Your task to perform on an android device: toggle priority inbox in the gmail app Image 0: 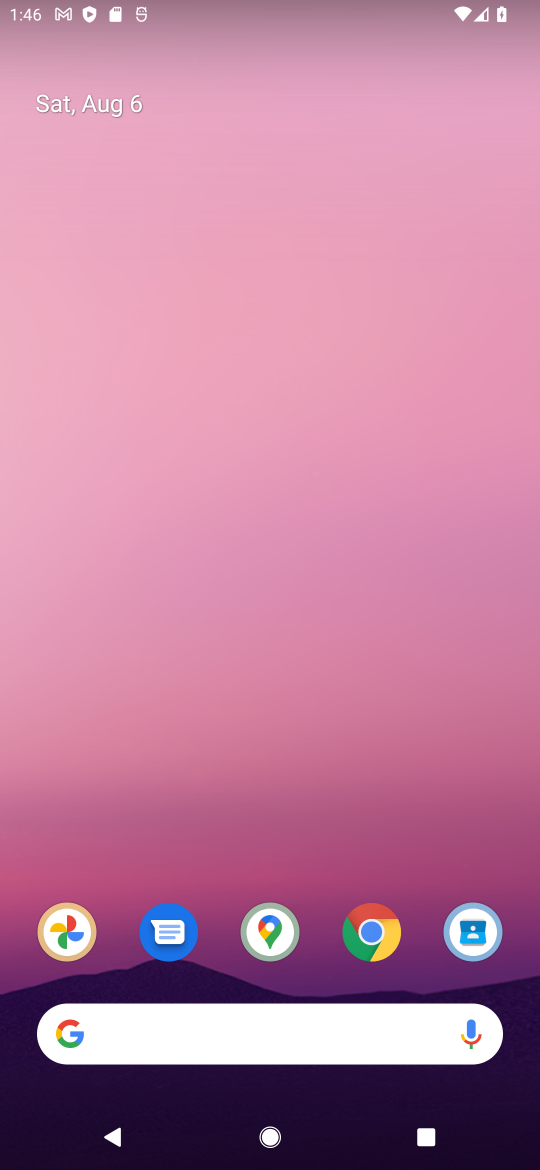
Step 0: drag from (235, 818) to (286, 46)
Your task to perform on an android device: toggle priority inbox in the gmail app Image 1: 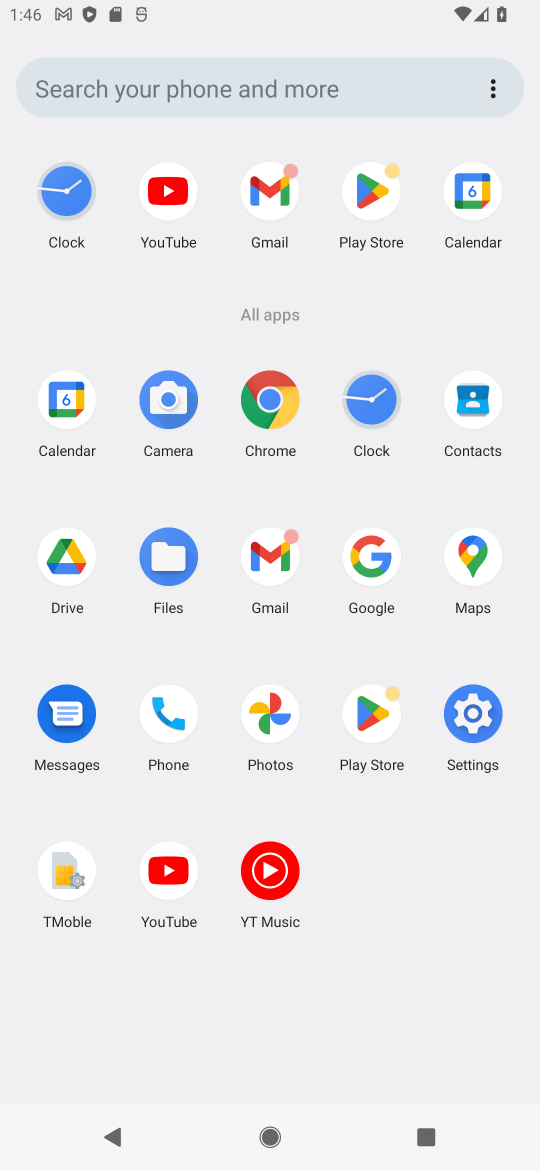
Step 1: click (266, 547)
Your task to perform on an android device: toggle priority inbox in the gmail app Image 2: 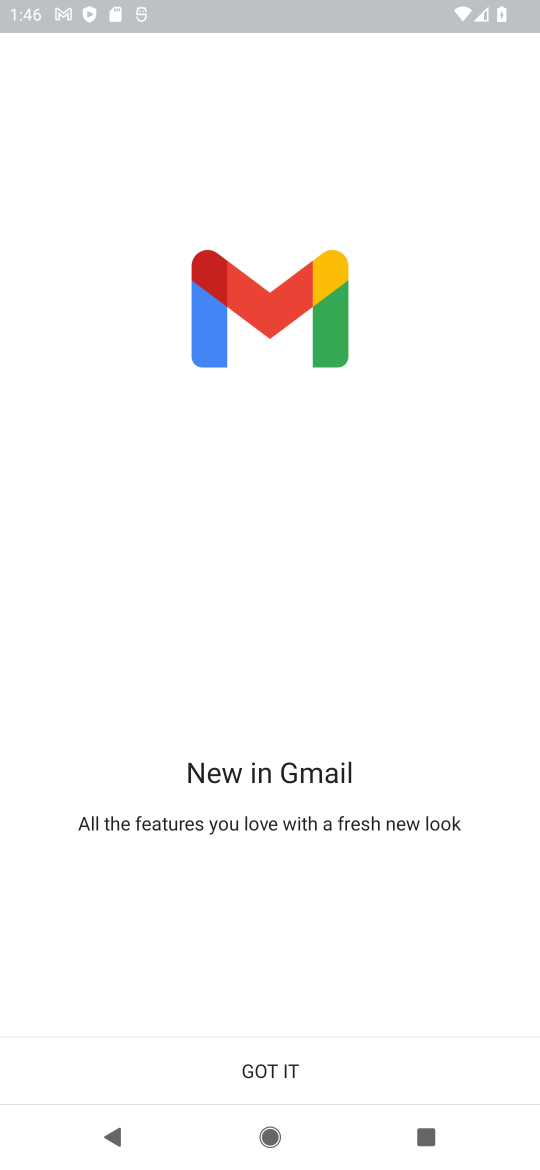
Step 2: click (258, 1043)
Your task to perform on an android device: toggle priority inbox in the gmail app Image 3: 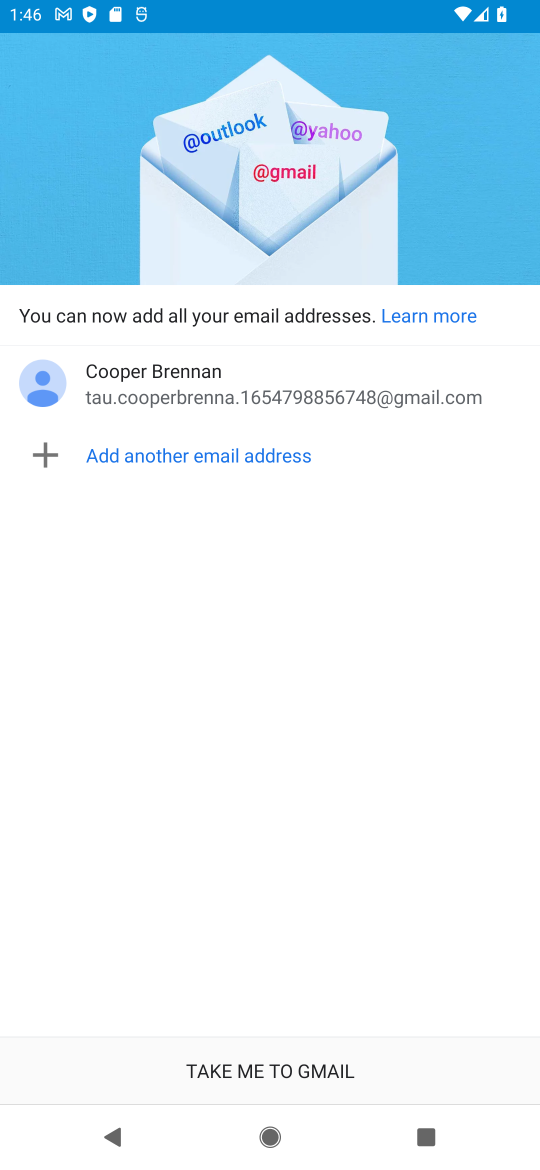
Step 3: click (258, 1043)
Your task to perform on an android device: toggle priority inbox in the gmail app Image 4: 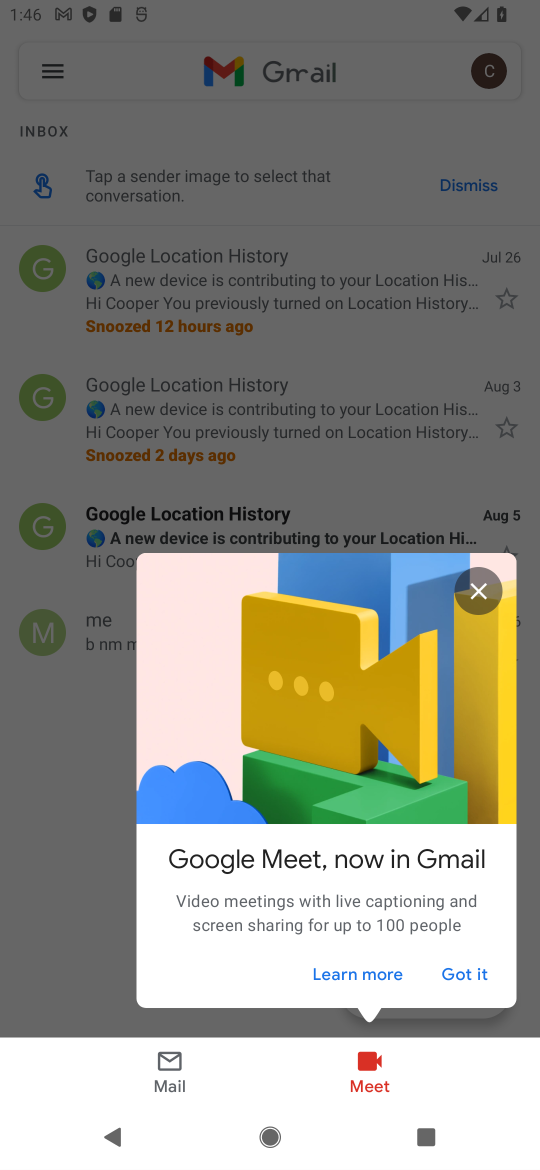
Step 4: click (474, 602)
Your task to perform on an android device: toggle priority inbox in the gmail app Image 5: 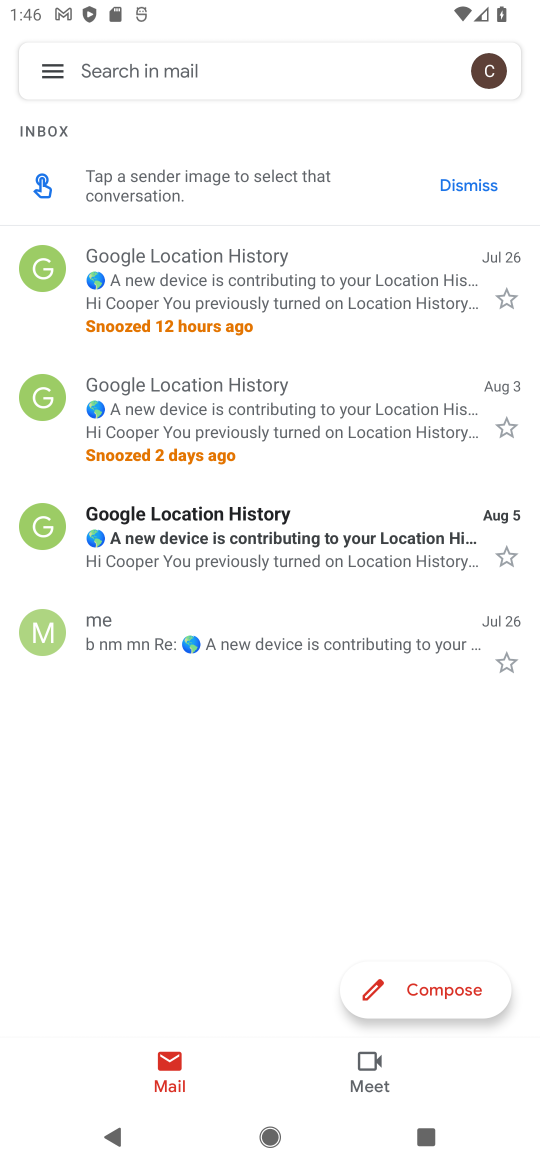
Step 5: click (56, 66)
Your task to perform on an android device: toggle priority inbox in the gmail app Image 6: 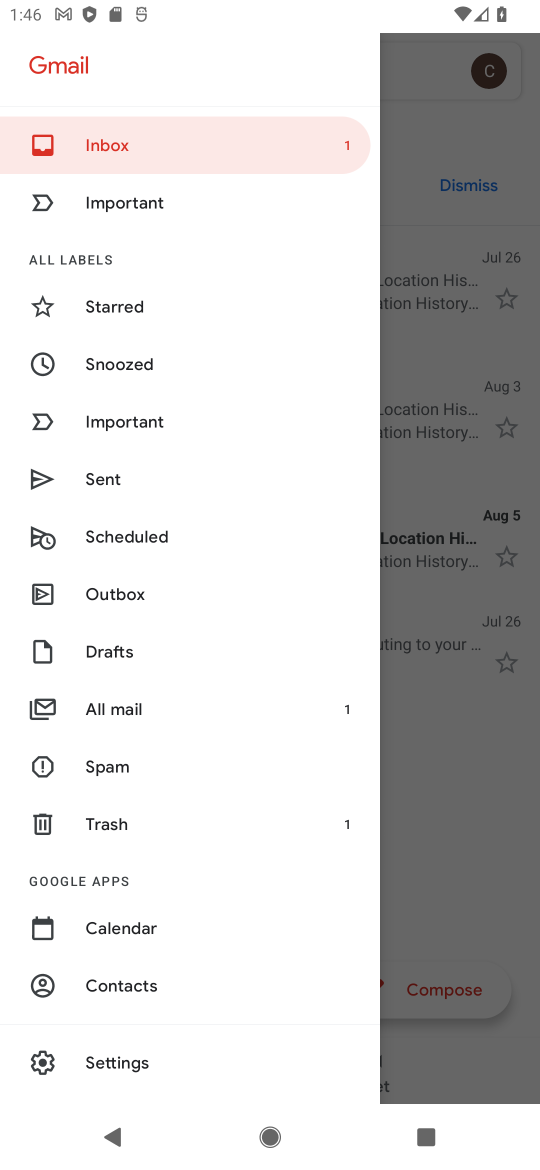
Step 6: drag from (242, 1020) to (219, 540)
Your task to perform on an android device: toggle priority inbox in the gmail app Image 7: 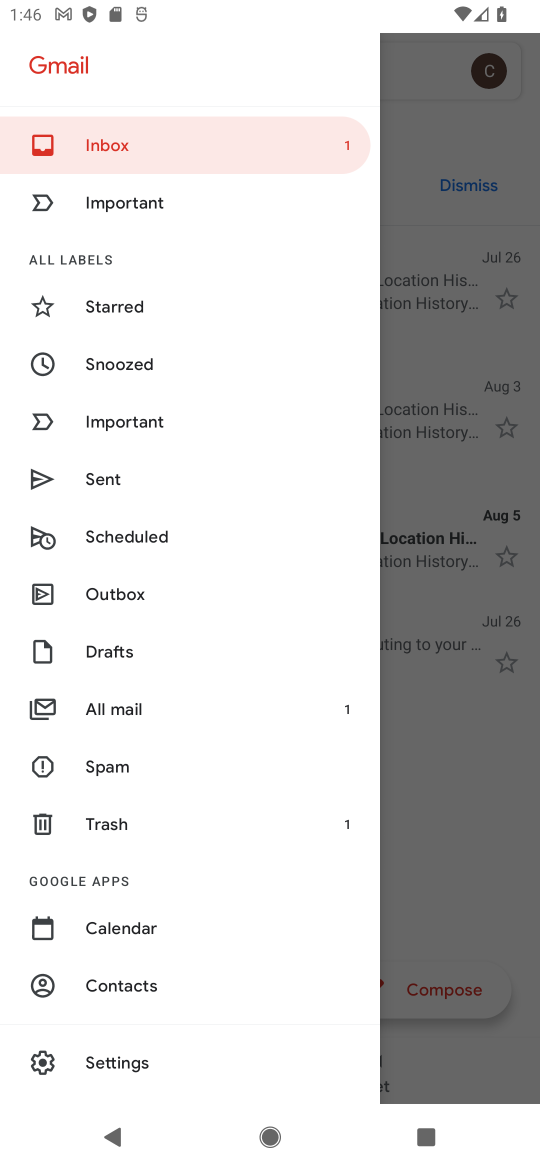
Step 7: click (104, 1051)
Your task to perform on an android device: toggle priority inbox in the gmail app Image 8: 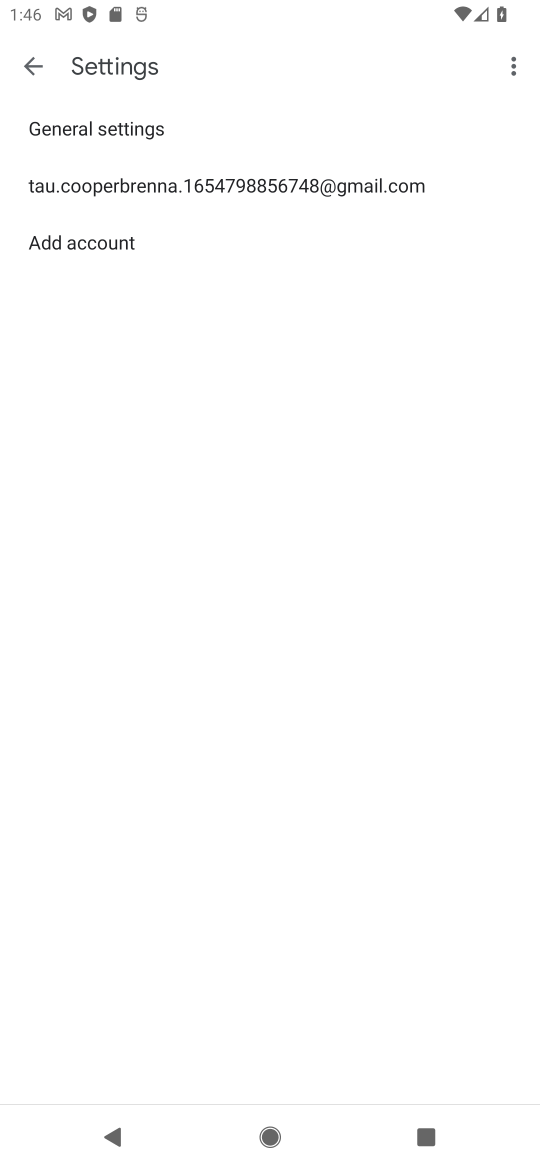
Step 8: click (247, 171)
Your task to perform on an android device: toggle priority inbox in the gmail app Image 9: 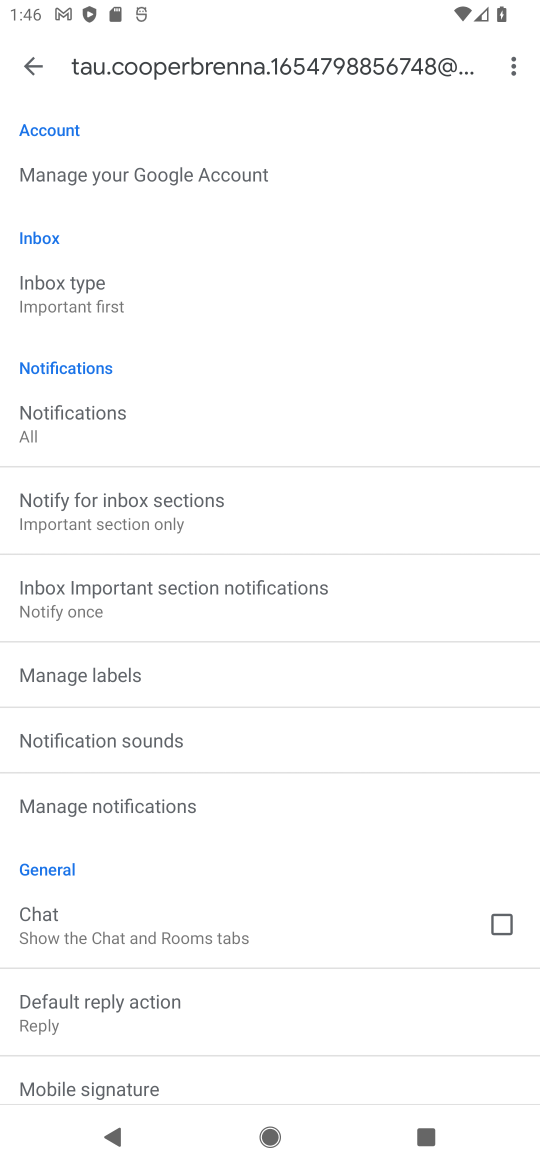
Step 9: click (53, 291)
Your task to perform on an android device: toggle priority inbox in the gmail app Image 10: 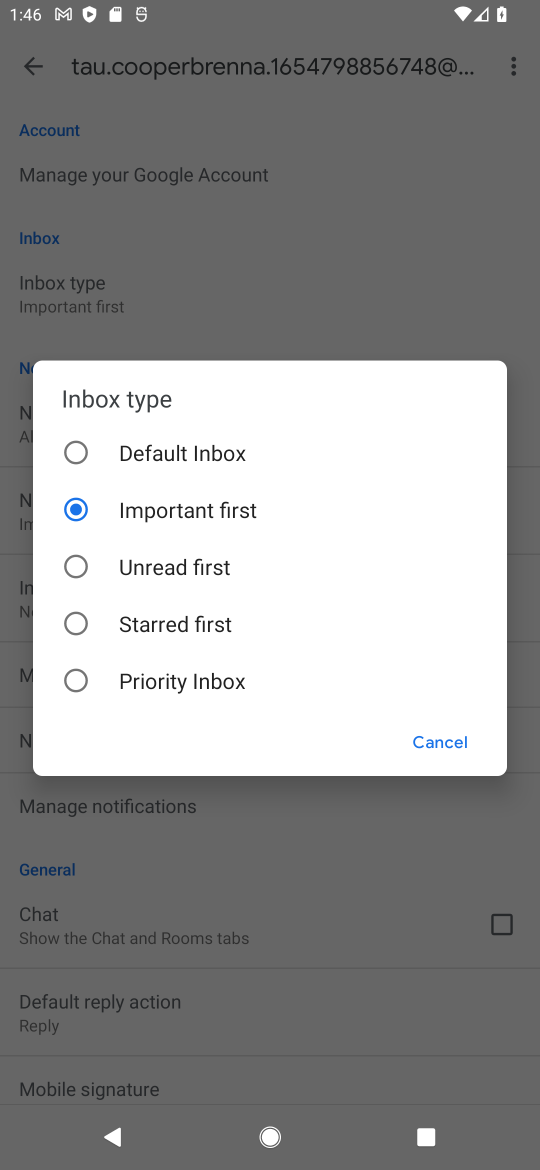
Step 10: click (189, 670)
Your task to perform on an android device: toggle priority inbox in the gmail app Image 11: 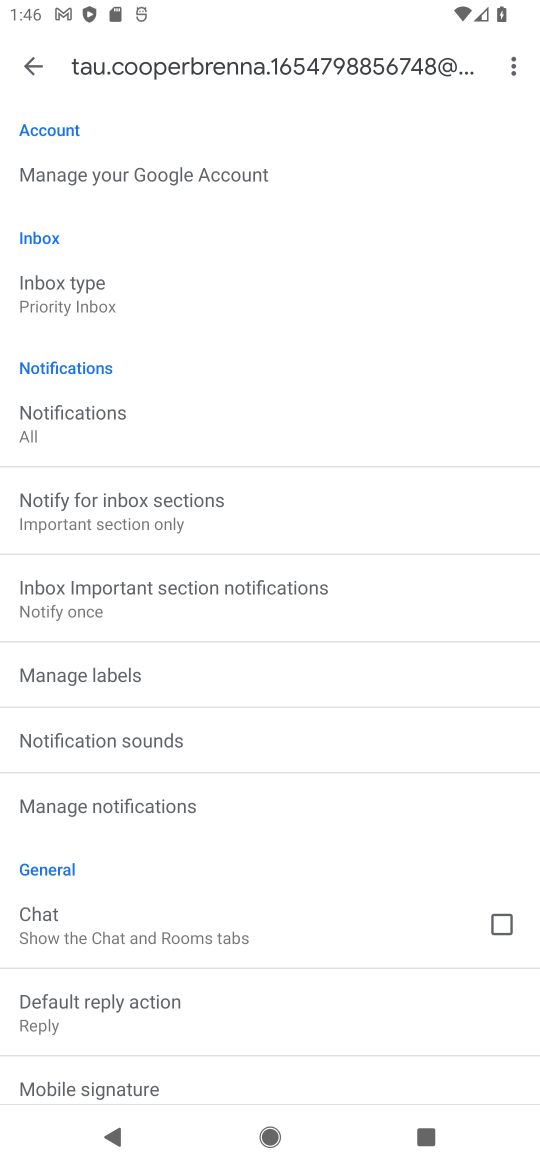
Step 11: task complete